Your task to perform on an android device: Open Maps and search for coffee Image 0: 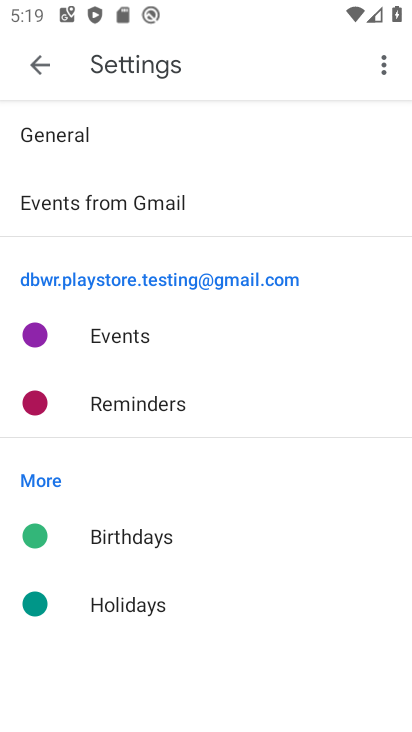
Step 0: press home button
Your task to perform on an android device: Open Maps and search for coffee Image 1: 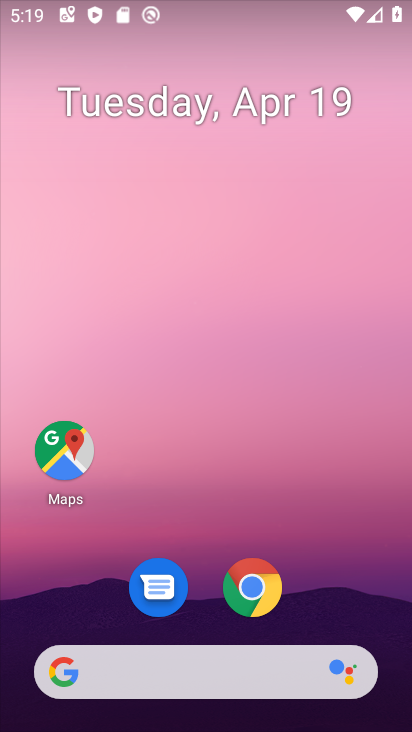
Step 1: click (71, 462)
Your task to perform on an android device: Open Maps and search for coffee Image 2: 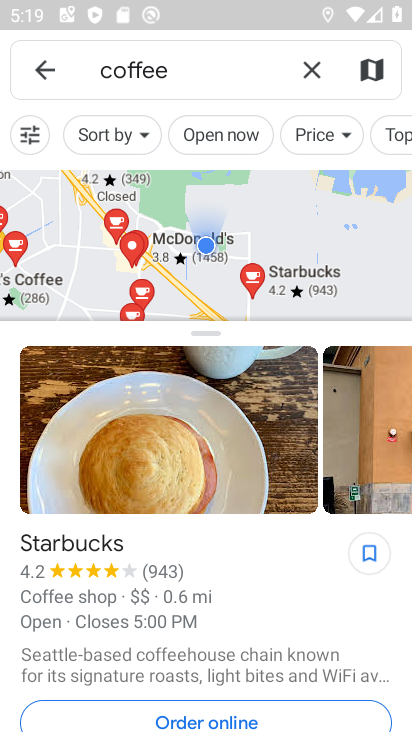
Step 2: task complete